Your task to perform on an android device: choose inbox layout in the gmail app Image 0: 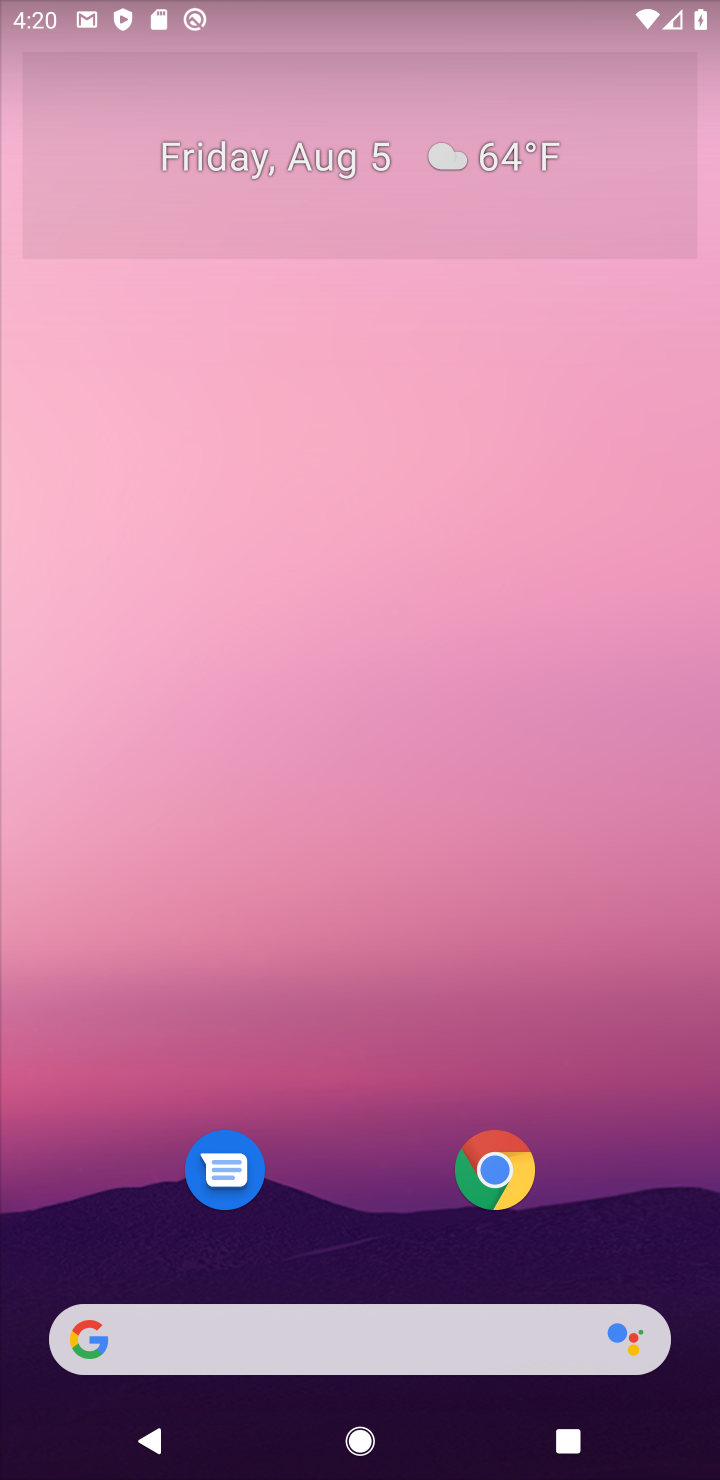
Step 0: drag from (328, 1115) to (344, 329)
Your task to perform on an android device: choose inbox layout in the gmail app Image 1: 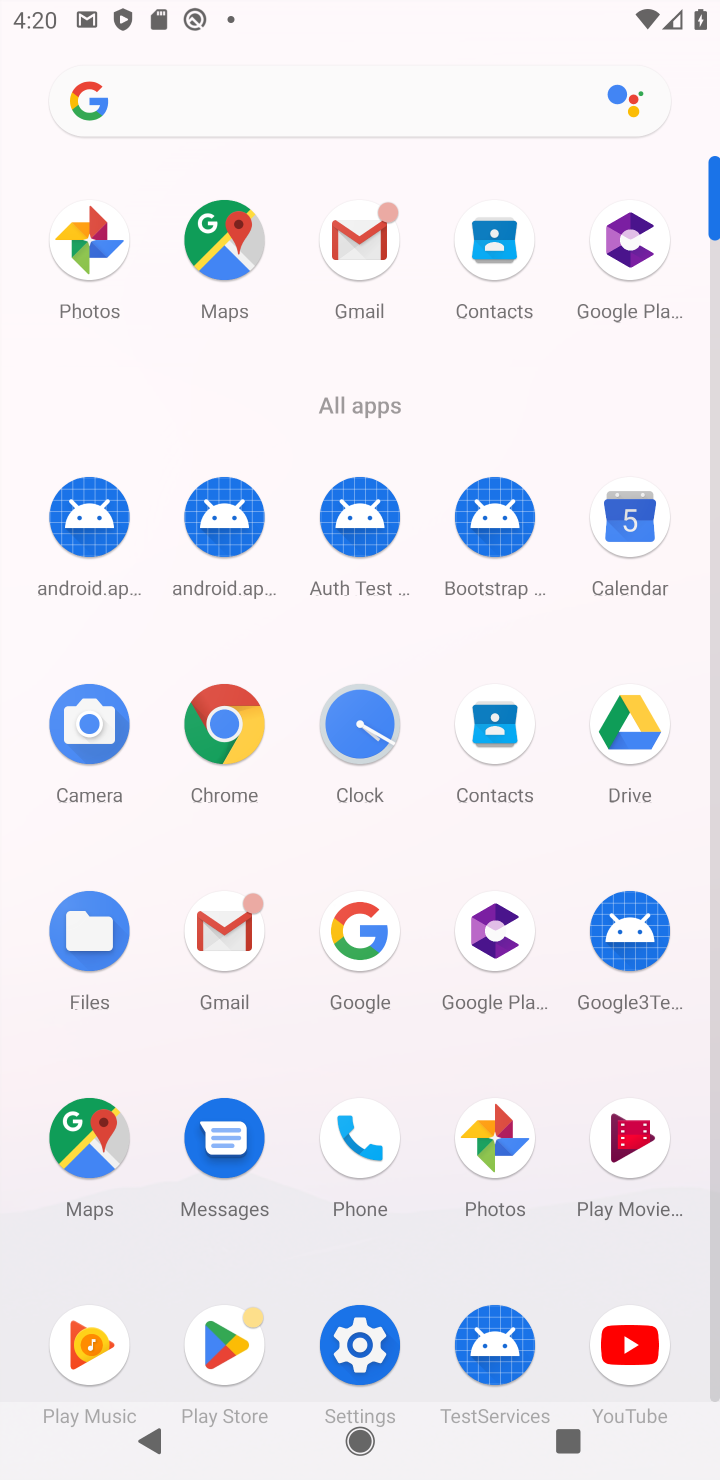
Step 1: click (349, 269)
Your task to perform on an android device: choose inbox layout in the gmail app Image 2: 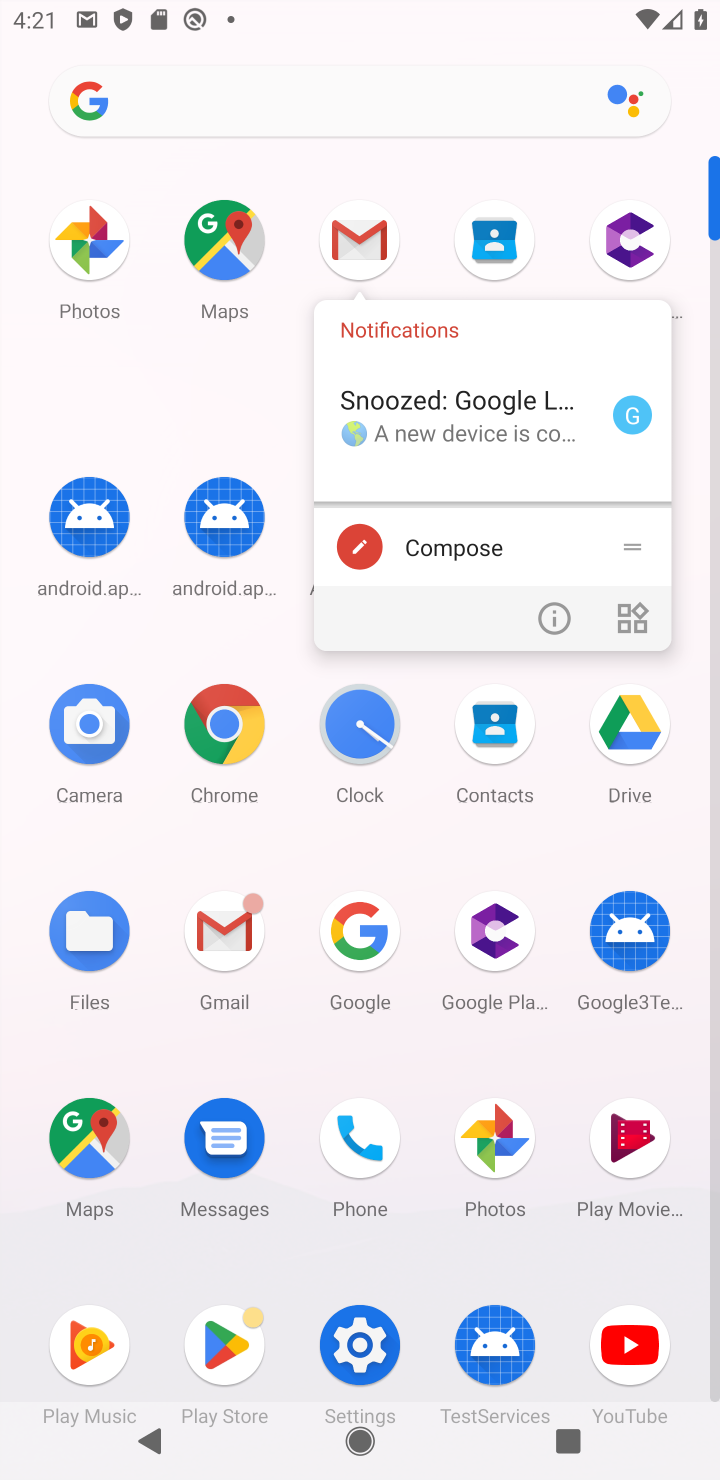
Step 2: click (353, 269)
Your task to perform on an android device: choose inbox layout in the gmail app Image 3: 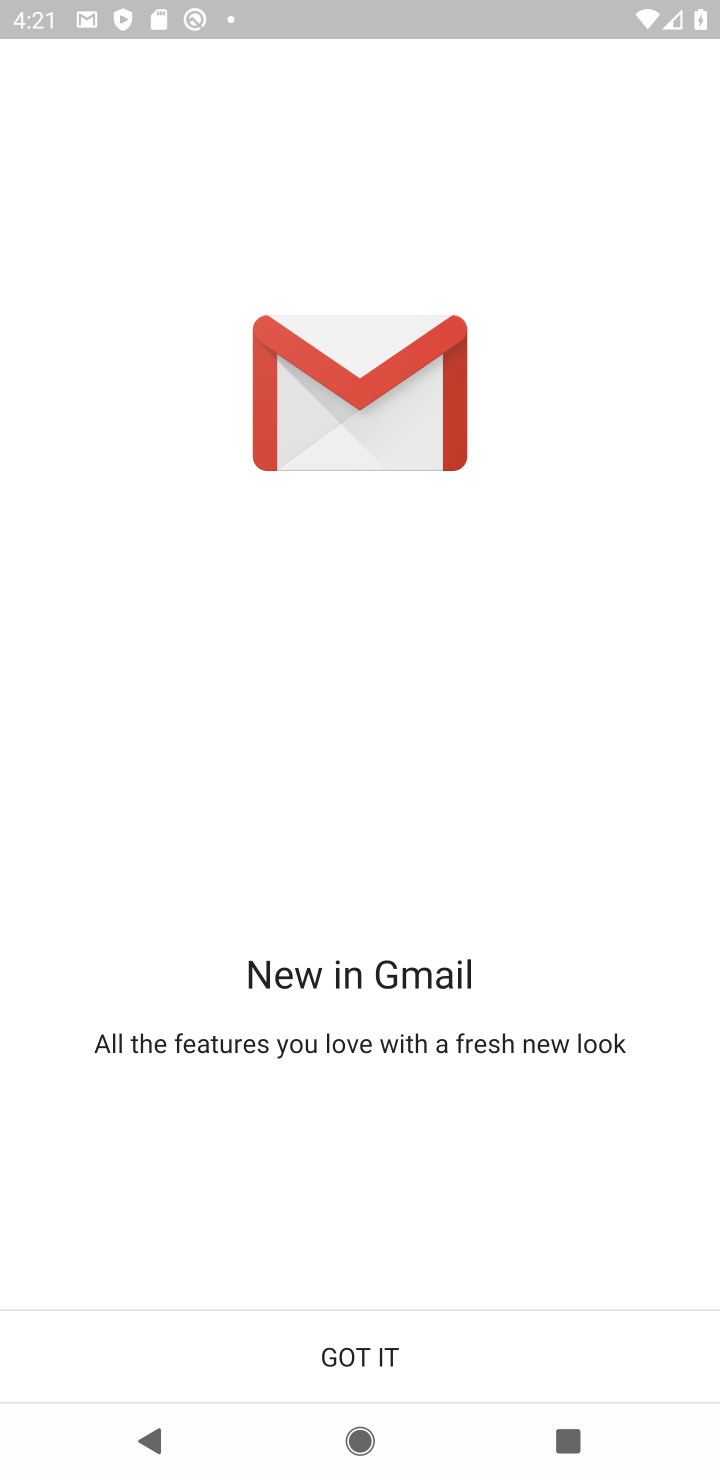
Step 3: click (348, 1347)
Your task to perform on an android device: choose inbox layout in the gmail app Image 4: 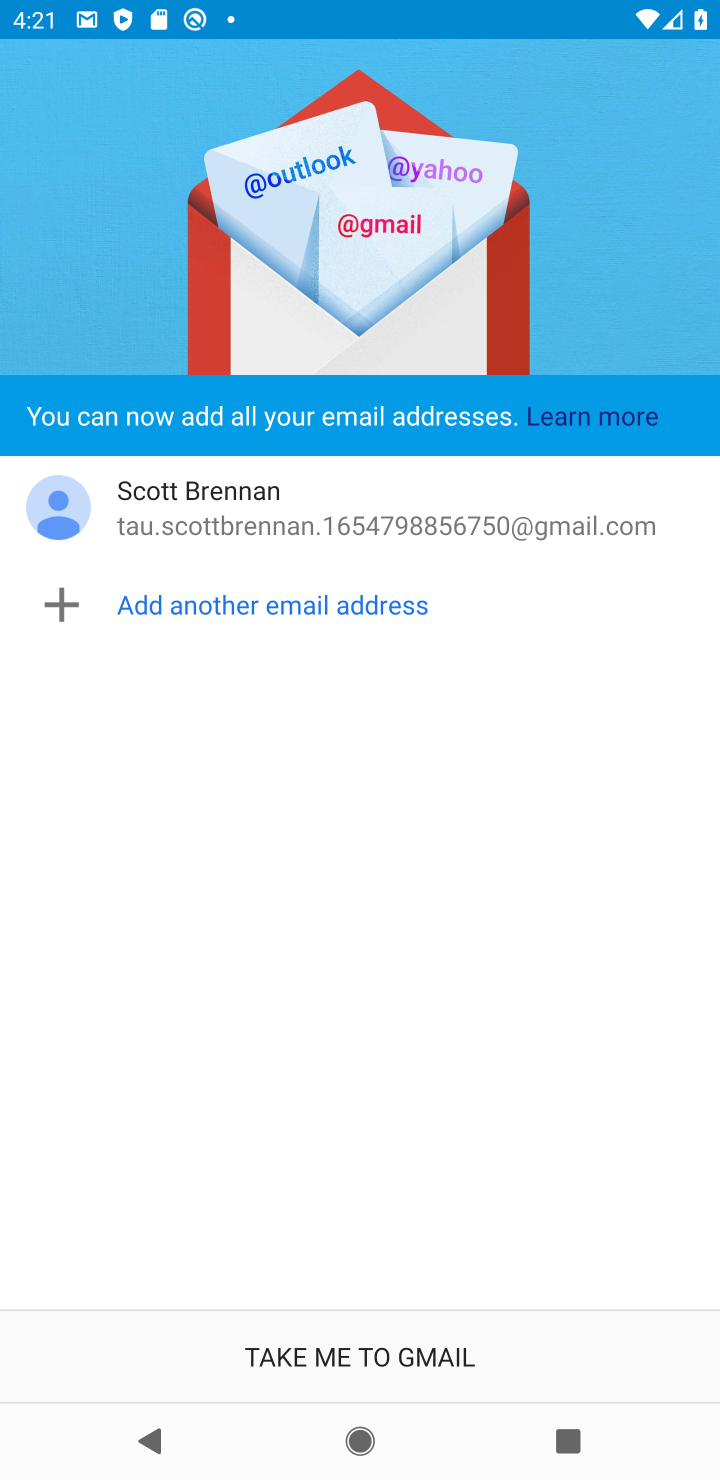
Step 4: click (352, 1349)
Your task to perform on an android device: choose inbox layout in the gmail app Image 5: 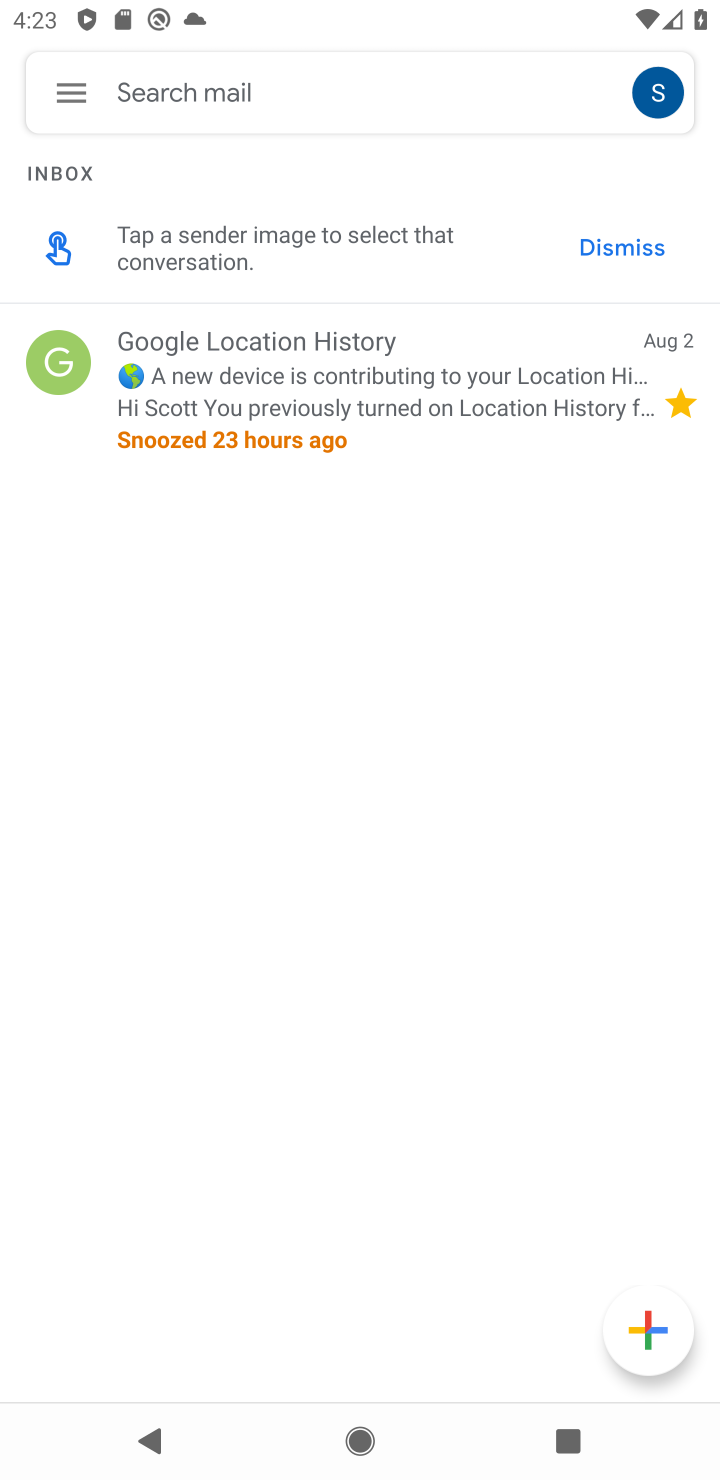
Step 5: click (58, 83)
Your task to perform on an android device: choose inbox layout in the gmail app Image 6: 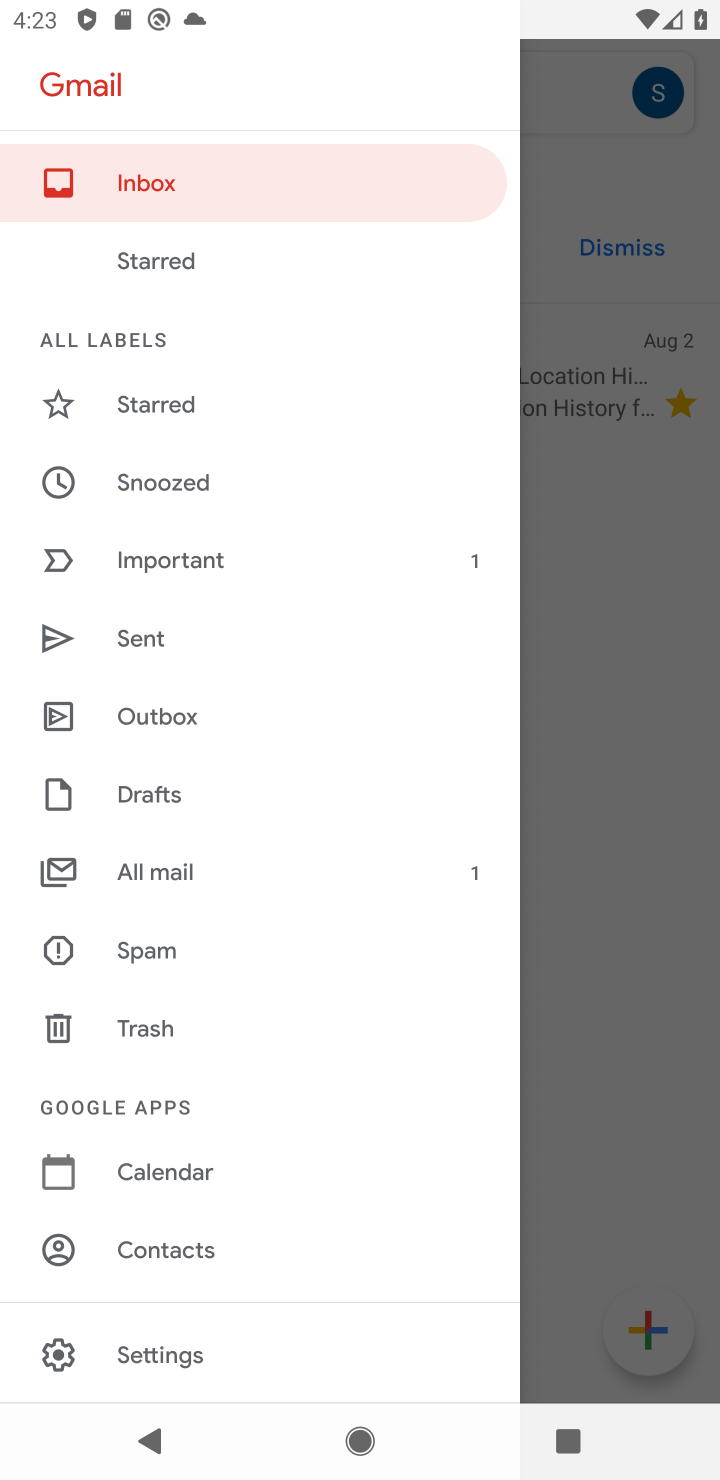
Step 6: drag from (291, 1124) to (280, 860)
Your task to perform on an android device: choose inbox layout in the gmail app Image 7: 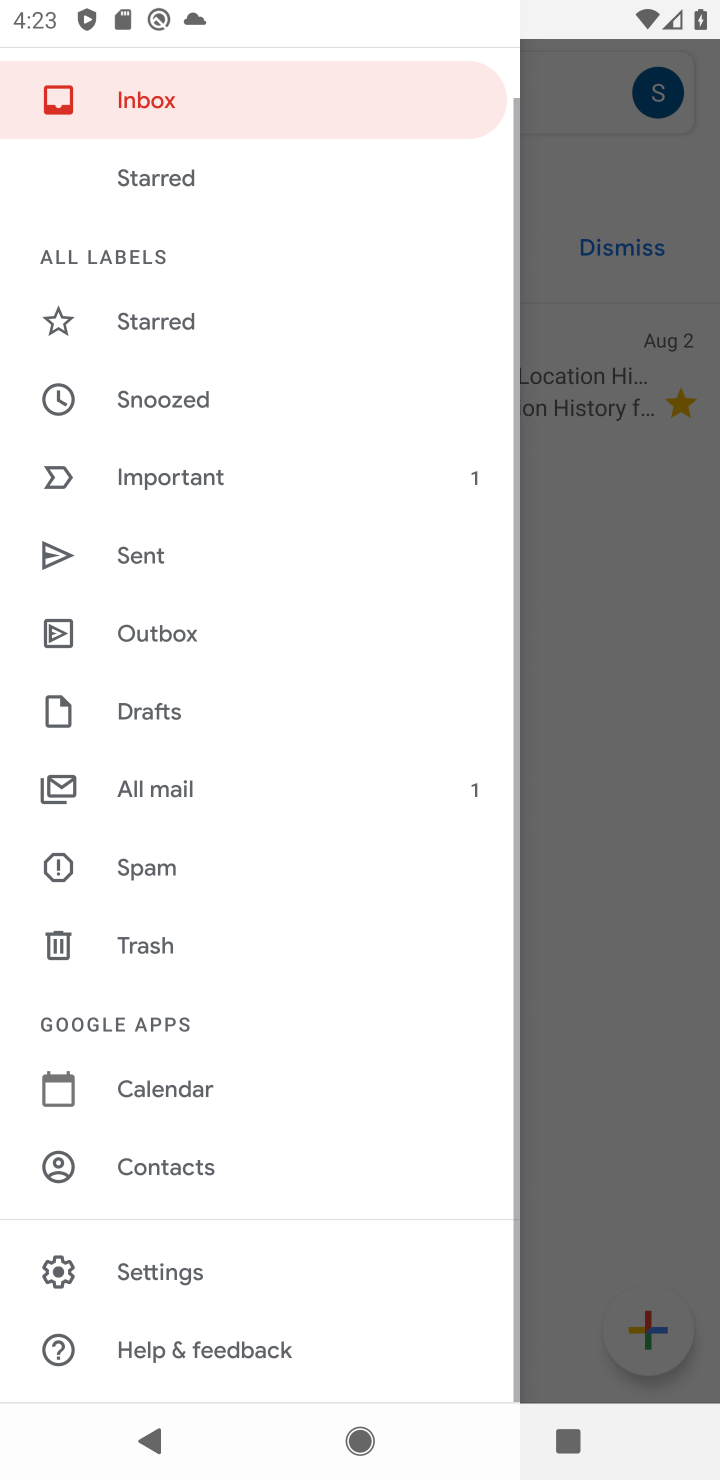
Step 7: click (151, 1271)
Your task to perform on an android device: choose inbox layout in the gmail app Image 8: 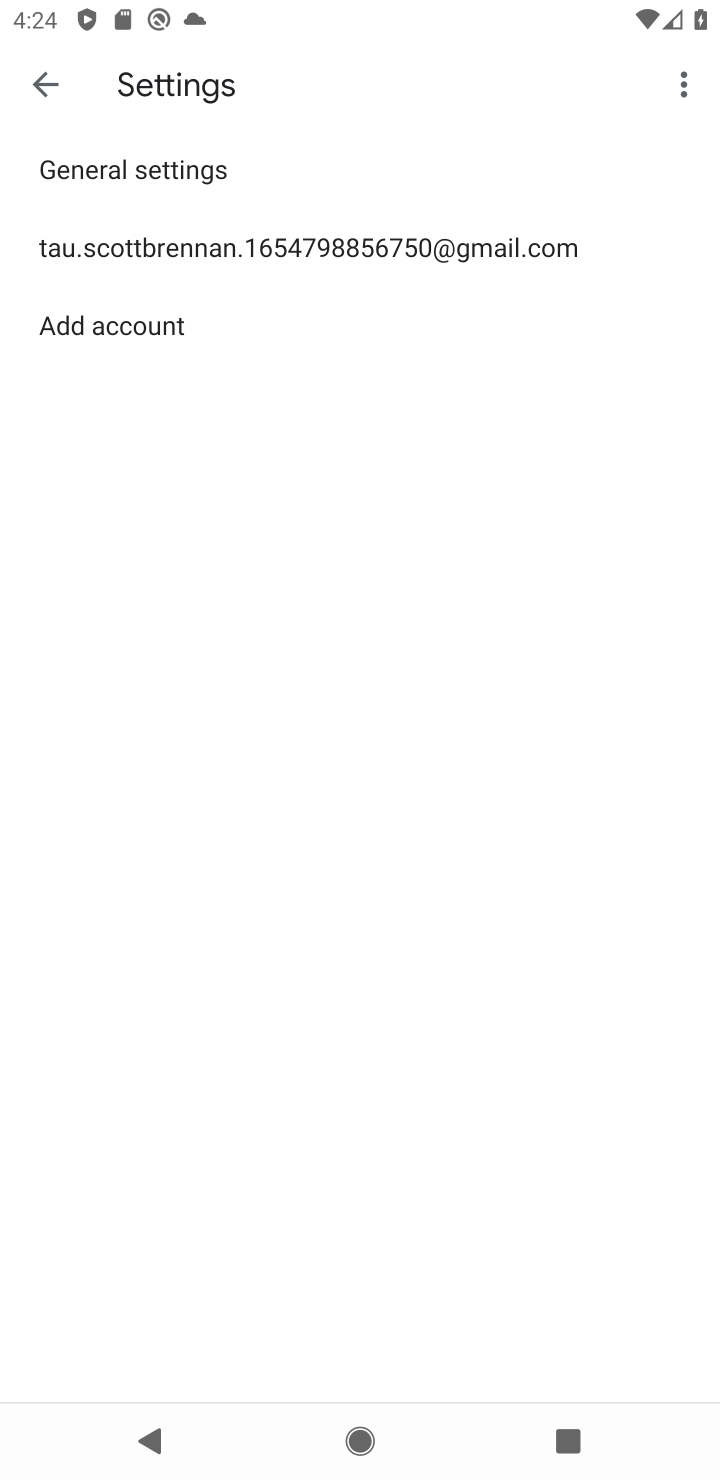
Step 8: click (166, 256)
Your task to perform on an android device: choose inbox layout in the gmail app Image 9: 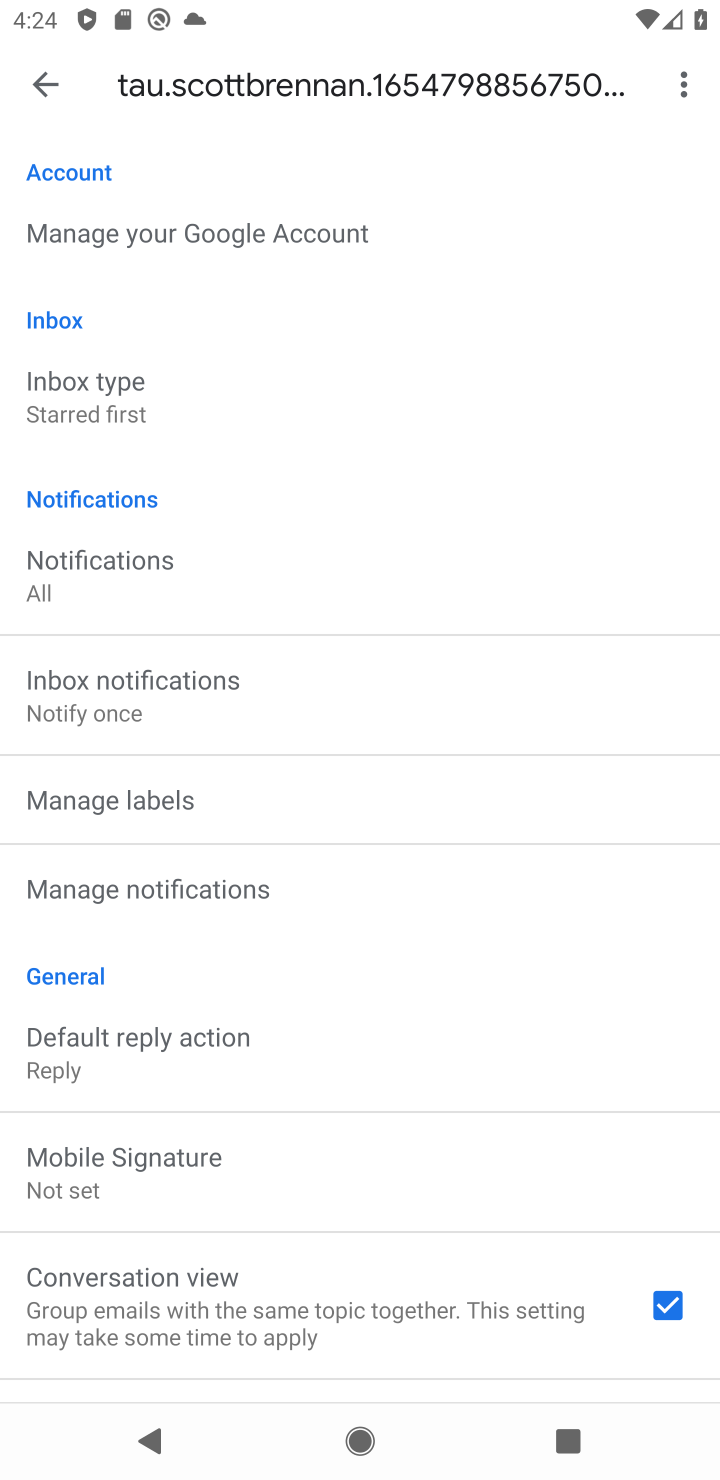
Step 9: click (108, 411)
Your task to perform on an android device: choose inbox layout in the gmail app Image 10: 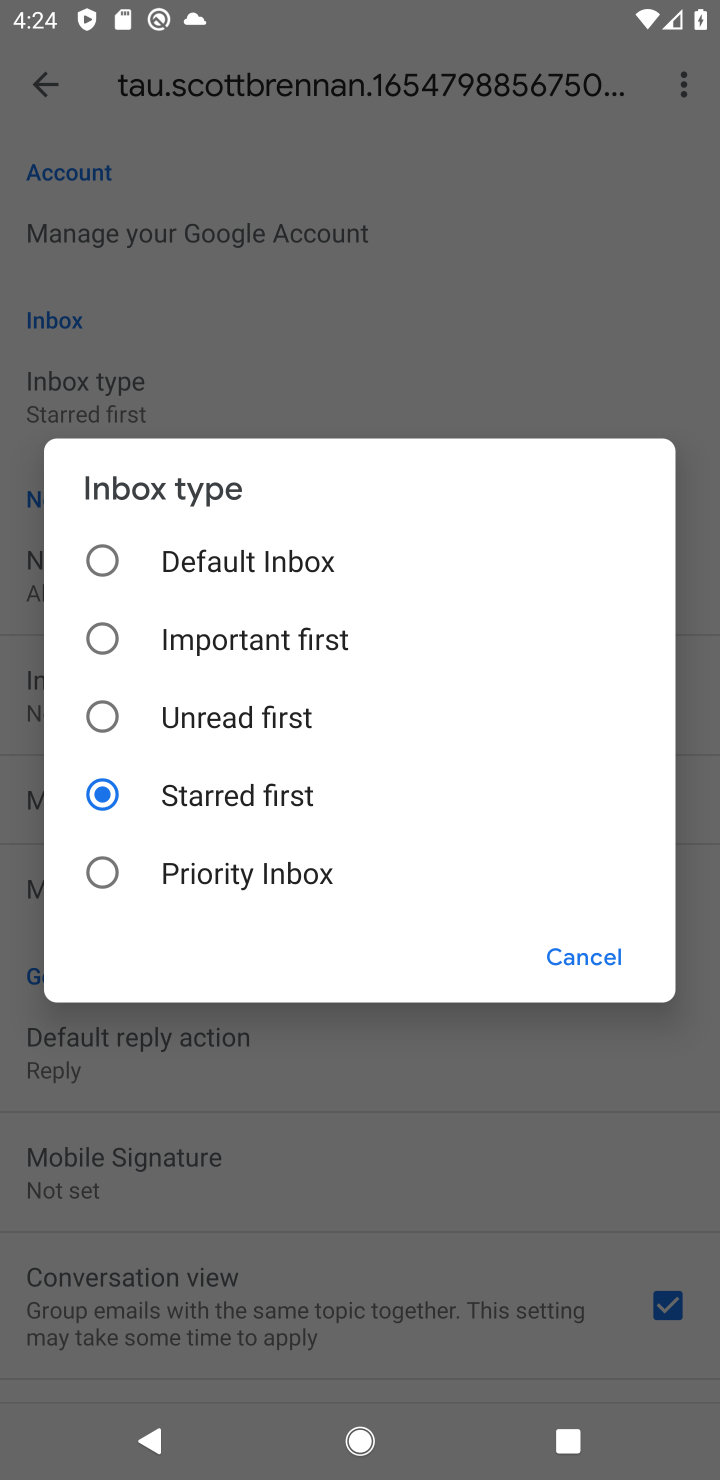
Step 10: click (95, 561)
Your task to perform on an android device: choose inbox layout in the gmail app Image 11: 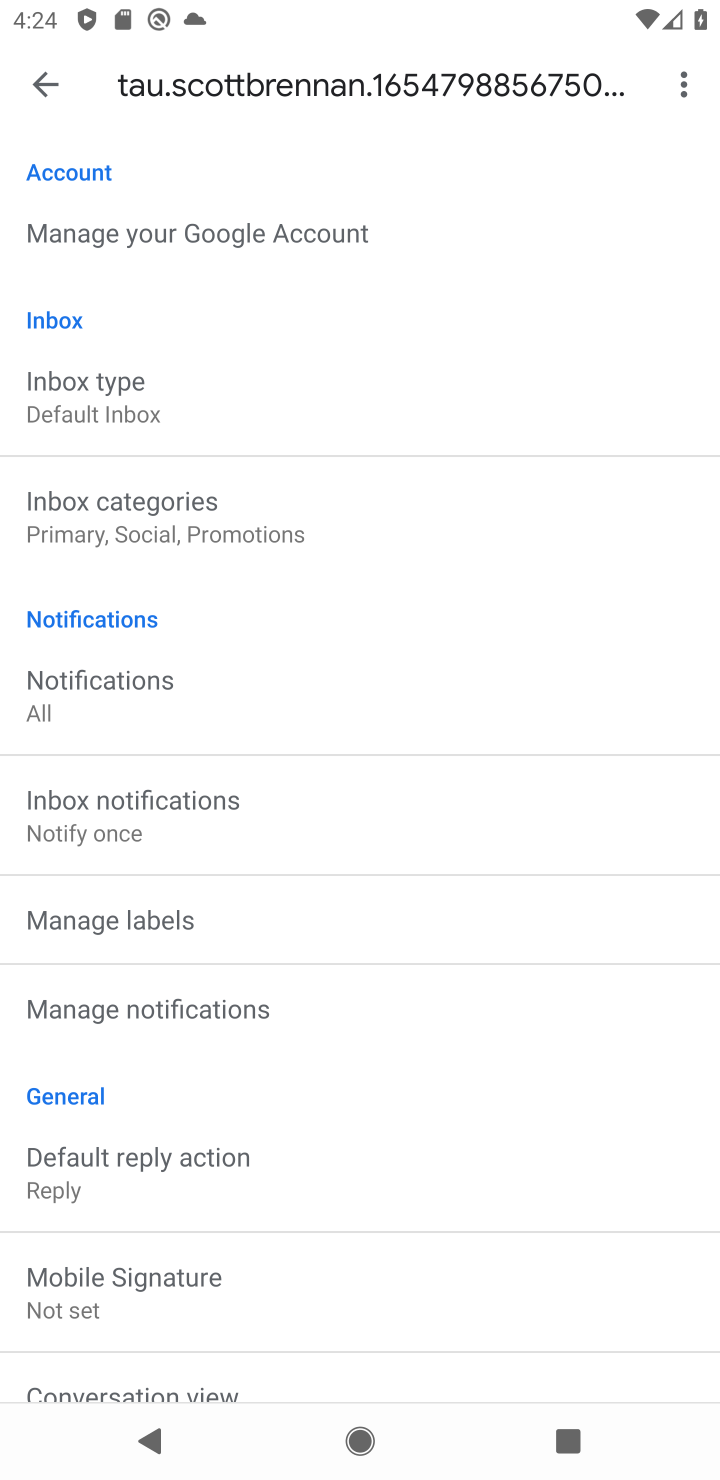
Step 11: task complete